Your task to perform on an android device: Do I have any events this weekend? Image 0: 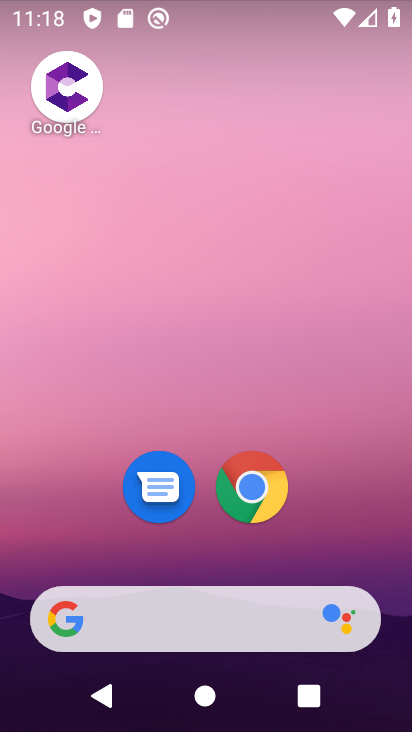
Step 0: drag from (190, 521) to (227, 111)
Your task to perform on an android device: Do I have any events this weekend? Image 1: 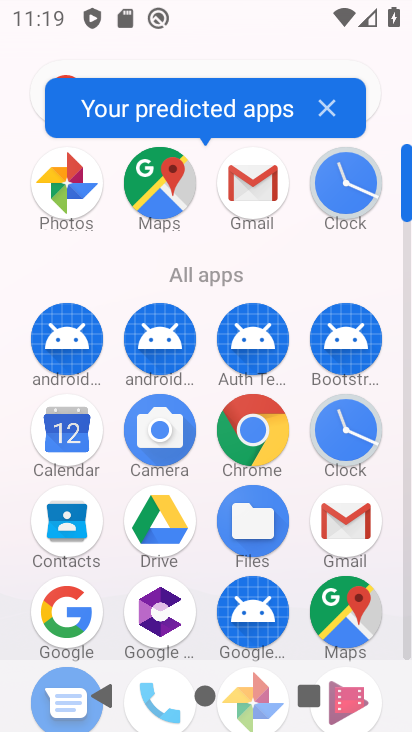
Step 1: click (62, 433)
Your task to perform on an android device: Do I have any events this weekend? Image 2: 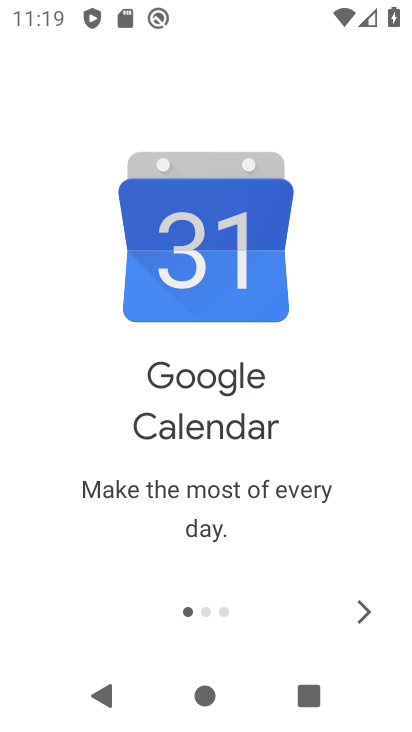
Step 2: click (361, 609)
Your task to perform on an android device: Do I have any events this weekend? Image 3: 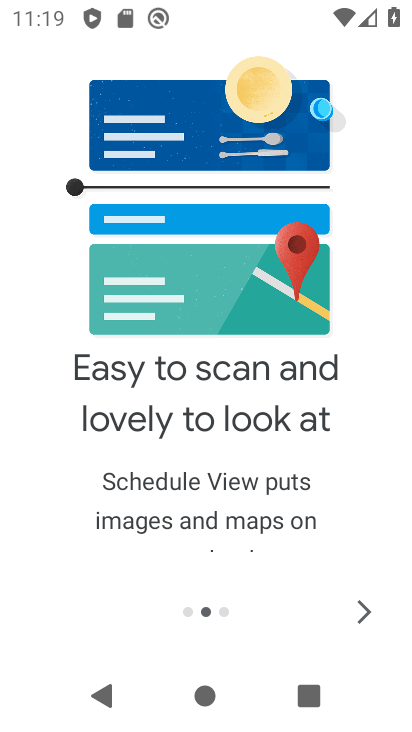
Step 3: click (359, 608)
Your task to perform on an android device: Do I have any events this weekend? Image 4: 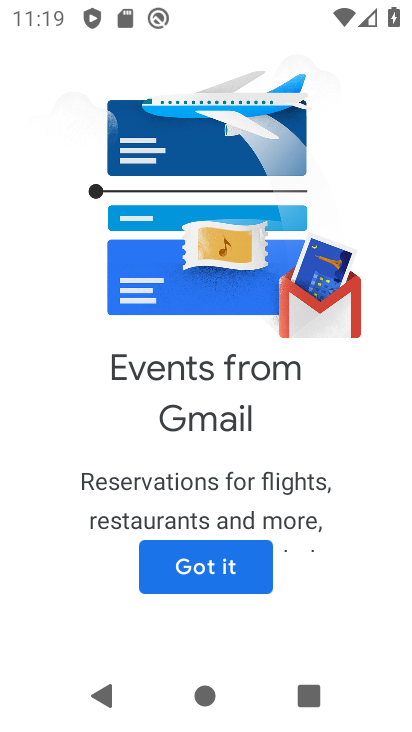
Step 4: click (355, 606)
Your task to perform on an android device: Do I have any events this weekend? Image 5: 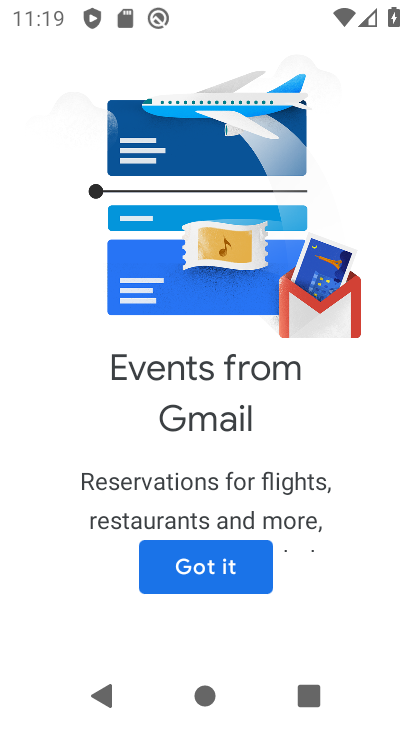
Step 5: click (240, 555)
Your task to perform on an android device: Do I have any events this weekend? Image 6: 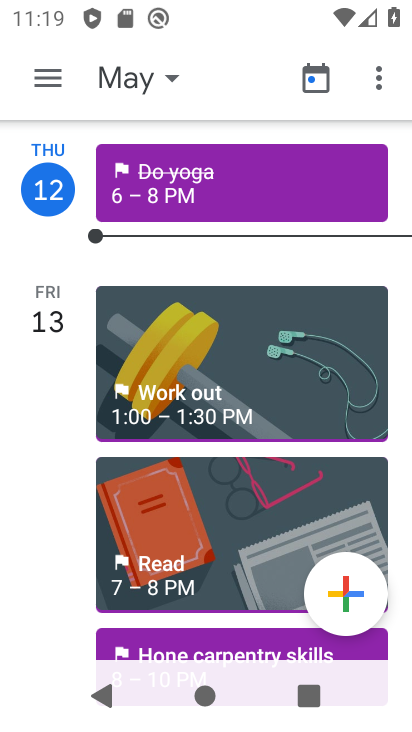
Step 6: click (52, 75)
Your task to perform on an android device: Do I have any events this weekend? Image 7: 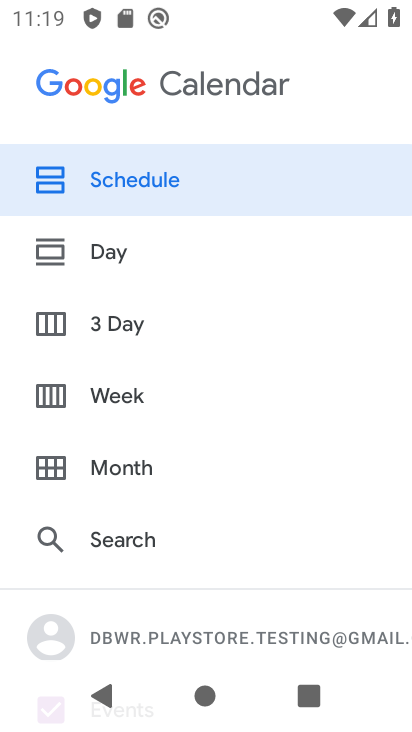
Step 7: drag from (165, 606) to (236, 189)
Your task to perform on an android device: Do I have any events this weekend? Image 8: 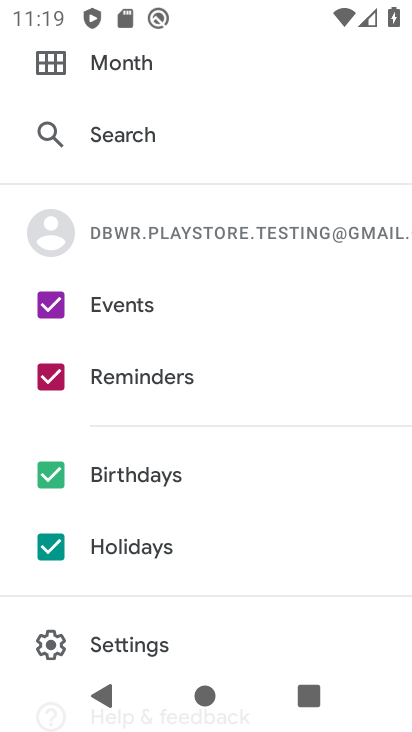
Step 8: press back button
Your task to perform on an android device: Do I have any events this weekend? Image 9: 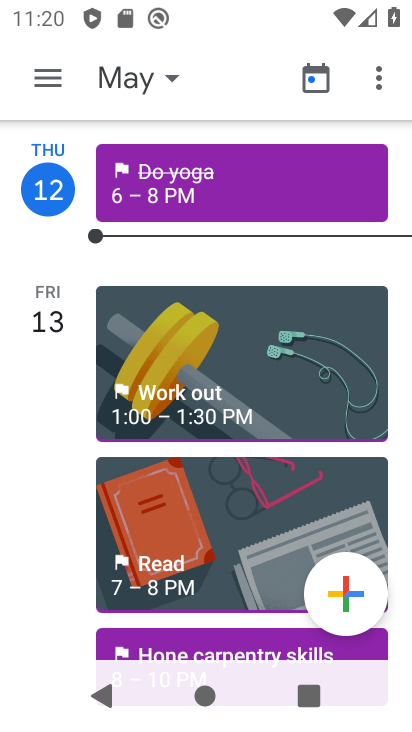
Step 9: drag from (242, 577) to (281, 255)
Your task to perform on an android device: Do I have any events this weekend? Image 10: 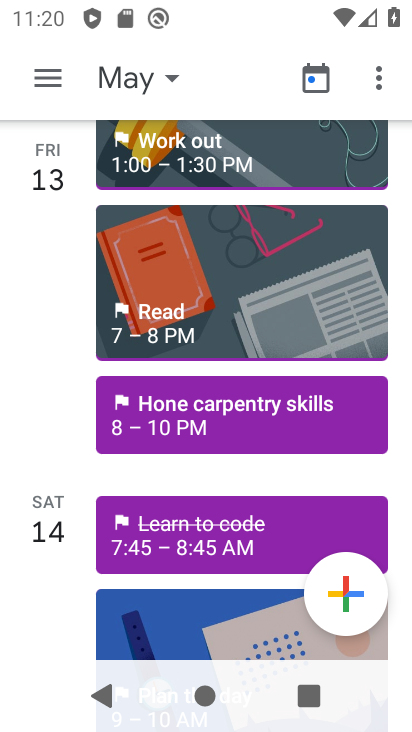
Step 10: drag from (224, 601) to (280, 232)
Your task to perform on an android device: Do I have any events this weekend? Image 11: 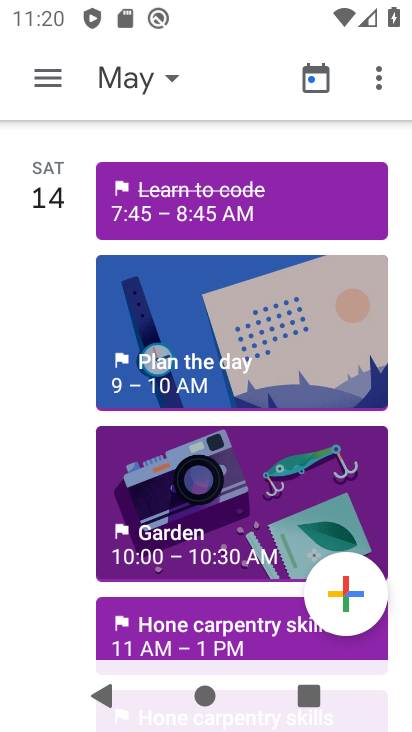
Step 11: click (228, 340)
Your task to perform on an android device: Do I have any events this weekend? Image 12: 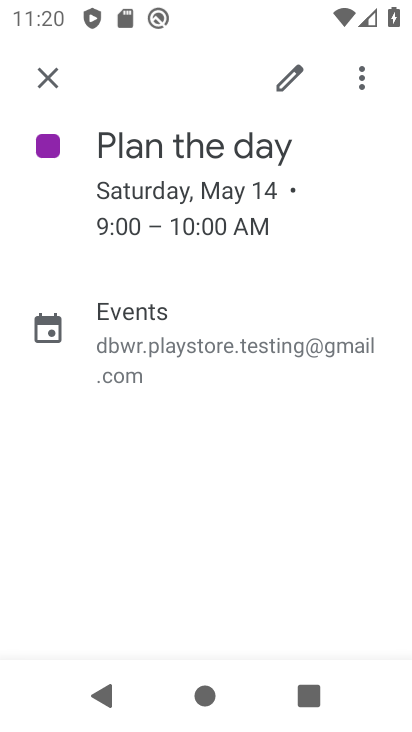
Step 12: task complete